Your task to perform on an android device: open sync settings in chrome Image 0: 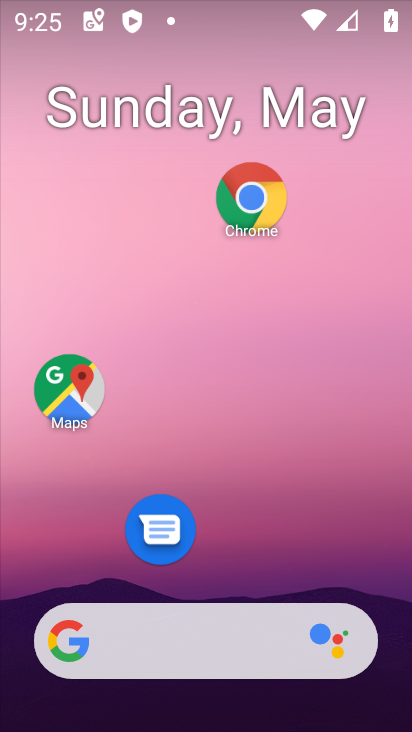
Step 0: click (266, 199)
Your task to perform on an android device: open sync settings in chrome Image 1: 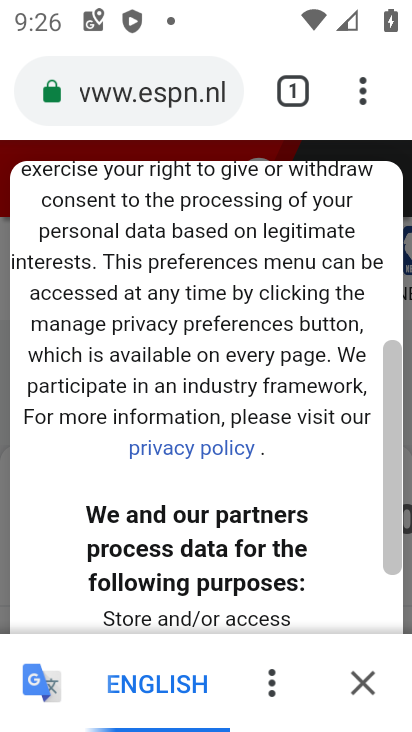
Step 1: click (360, 88)
Your task to perform on an android device: open sync settings in chrome Image 2: 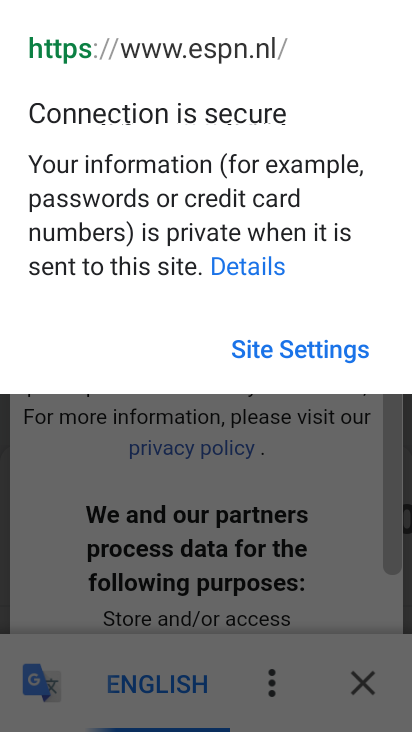
Step 2: click (318, 405)
Your task to perform on an android device: open sync settings in chrome Image 3: 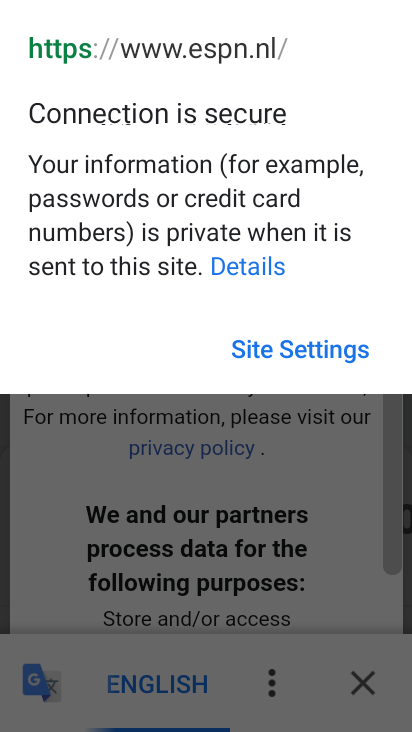
Step 3: click (180, 457)
Your task to perform on an android device: open sync settings in chrome Image 4: 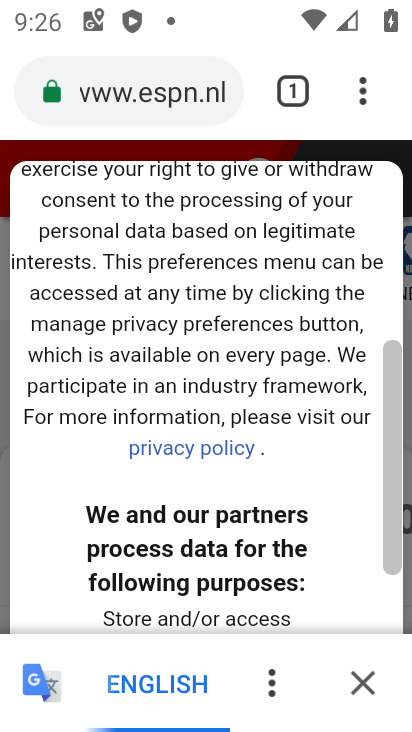
Step 4: click (358, 95)
Your task to perform on an android device: open sync settings in chrome Image 5: 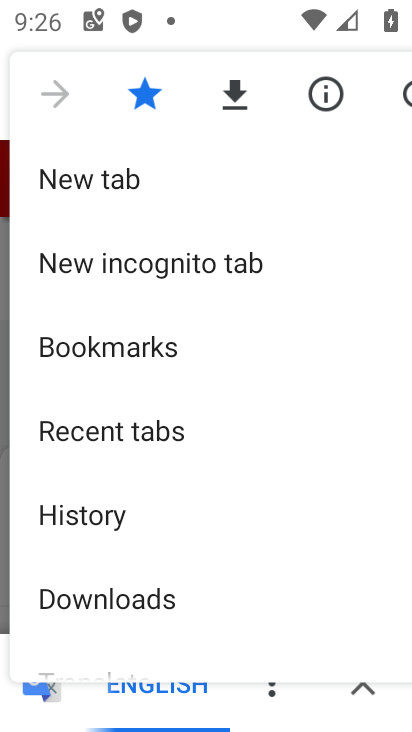
Step 5: drag from (221, 639) to (294, 242)
Your task to perform on an android device: open sync settings in chrome Image 6: 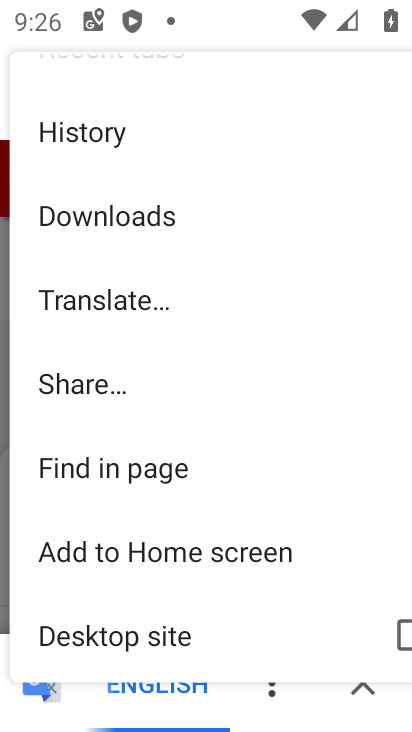
Step 6: drag from (106, 608) to (147, 331)
Your task to perform on an android device: open sync settings in chrome Image 7: 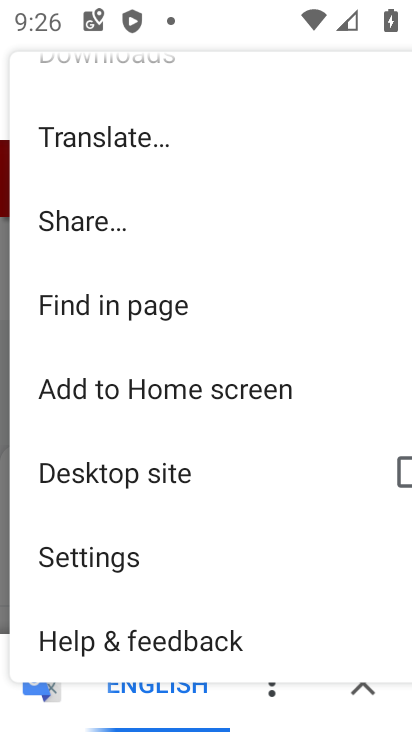
Step 7: drag from (171, 651) to (229, 454)
Your task to perform on an android device: open sync settings in chrome Image 8: 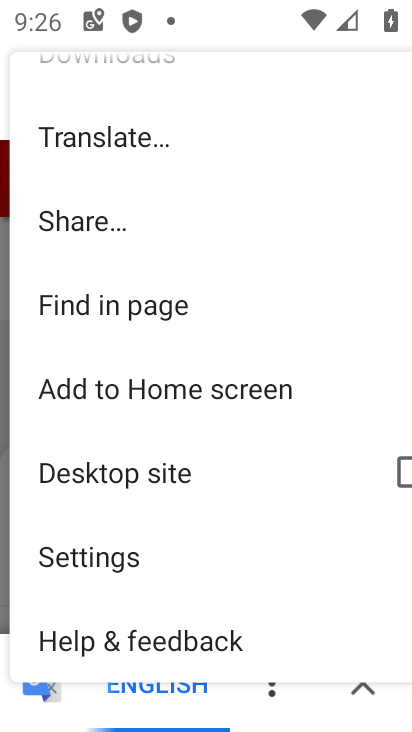
Step 8: drag from (207, 519) to (237, 346)
Your task to perform on an android device: open sync settings in chrome Image 9: 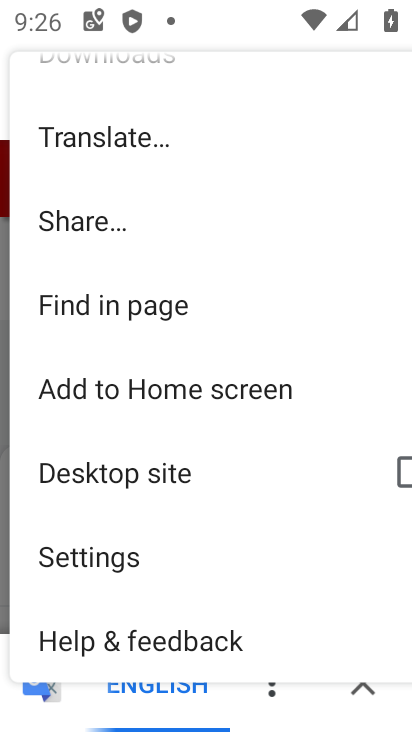
Step 9: click (160, 555)
Your task to perform on an android device: open sync settings in chrome Image 10: 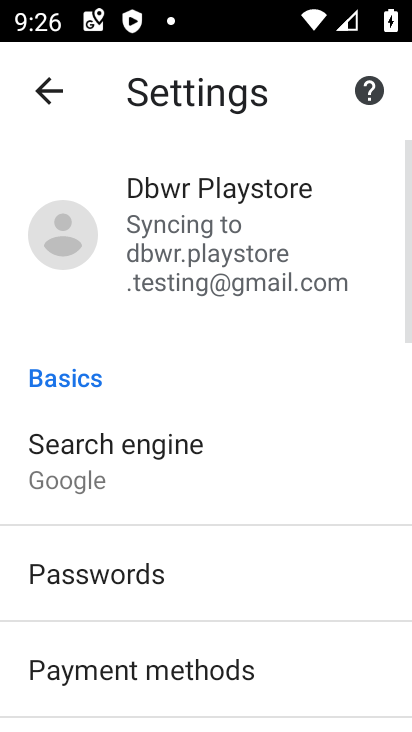
Step 10: click (246, 274)
Your task to perform on an android device: open sync settings in chrome Image 11: 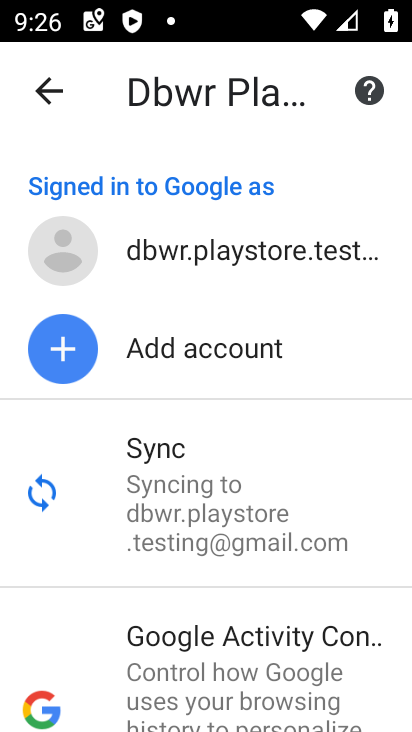
Step 11: click (238, 520)
Your task to perform on an android device: open sync settings in chrome Image 12: 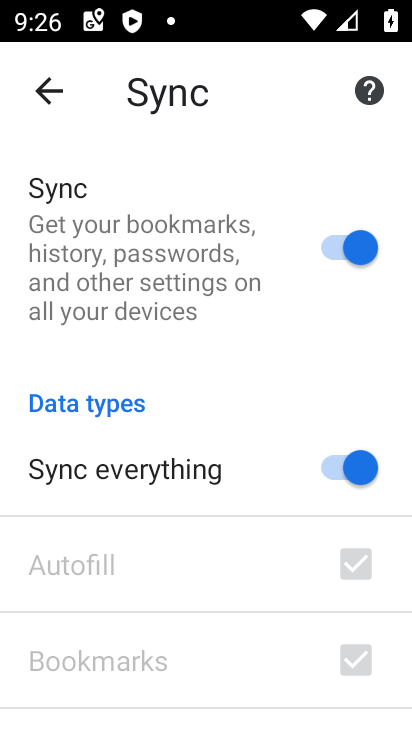
Step 12: task complete